Your task to perform on an android device: Go to internet settings Image 0: 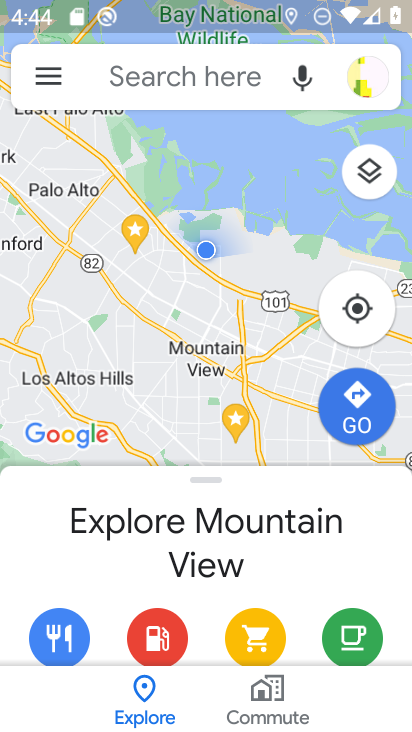
Step 0: press home button
Your task to perform on an android device: Go to internet settings Image 1: 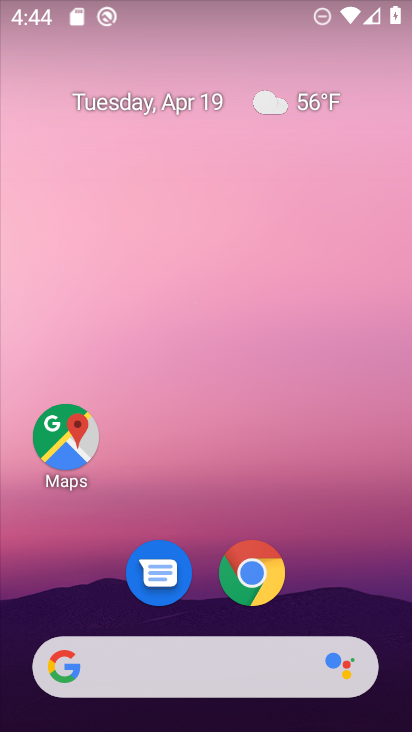
Step 1: drag from (352, 585) to (338, 39)
Your task to perform on an android device: Go to internet settings Image 2: 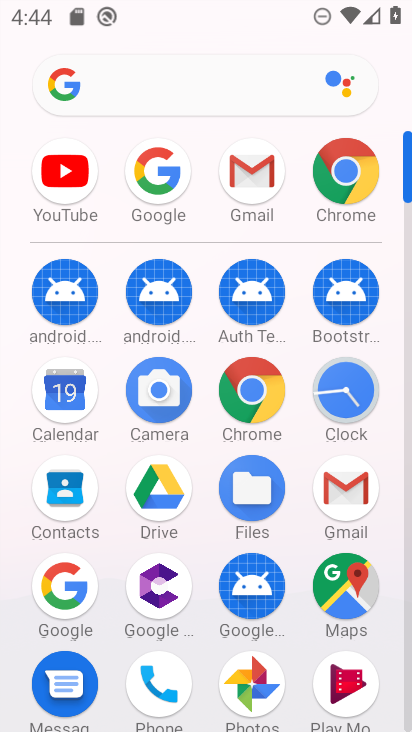
Step 2: drag from (405, 641) to (410, 585)
Your task to perform on an android device: Go to internet settings Image 3: 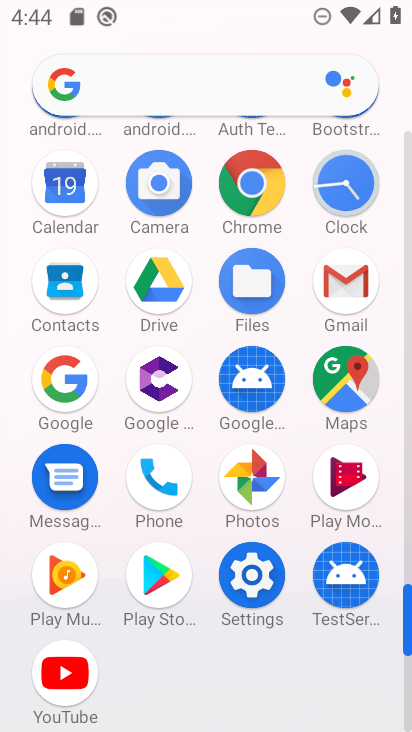
Step 3: click (252, 577)
Your task to perform on an android device: Go to internet settings Image 4: 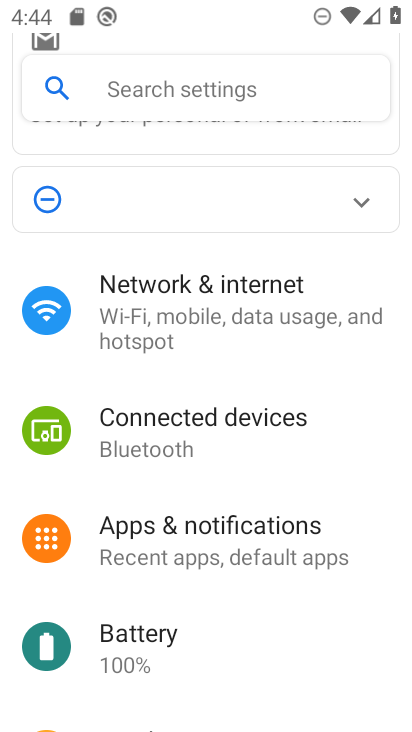
Step 4: click (206, 317)
Your task to perform on an android device: Go to internet settings Image 5: 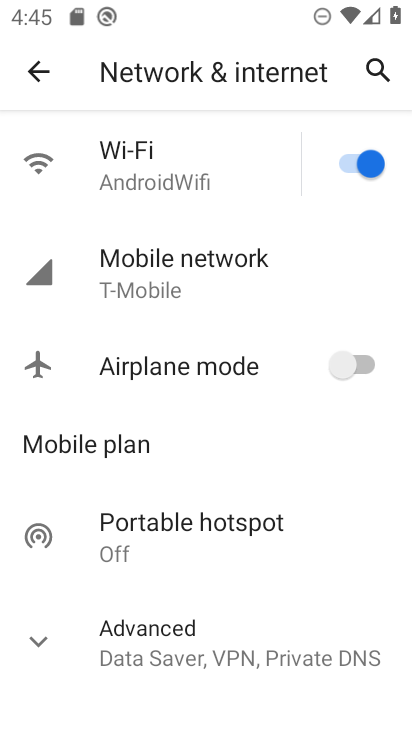
Step 5: drag from (217, 508) to (198, 291)
Your task to perform on an android device: Go to internet settings Image 6: 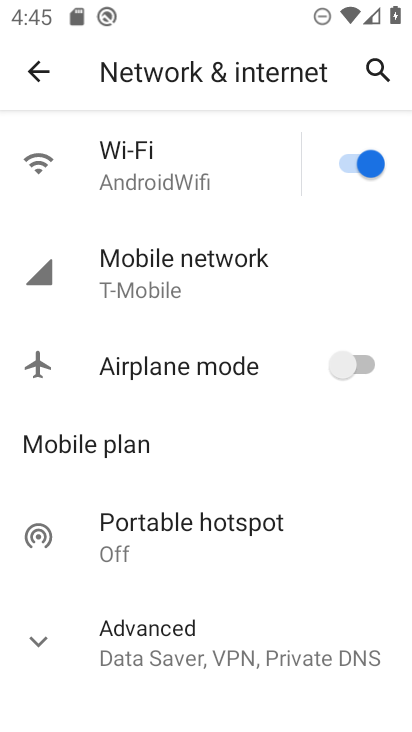
Step 6: click (47, 647)
Your task to perform on an android device: Go to internet settings Image 7: 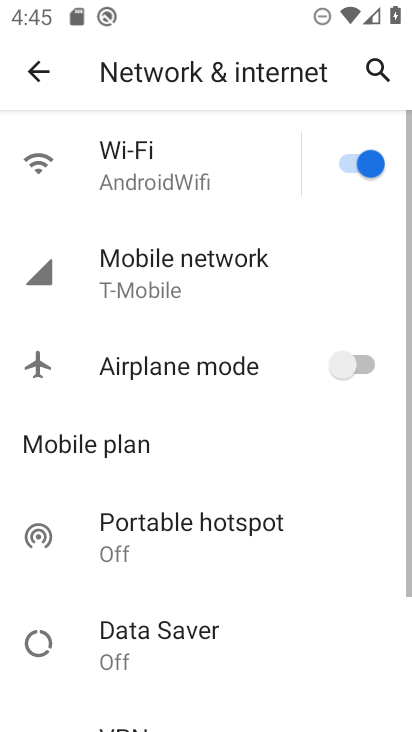
Step 7: task complete